Your task to perform on an android device: turn off sleep mode Image 0: 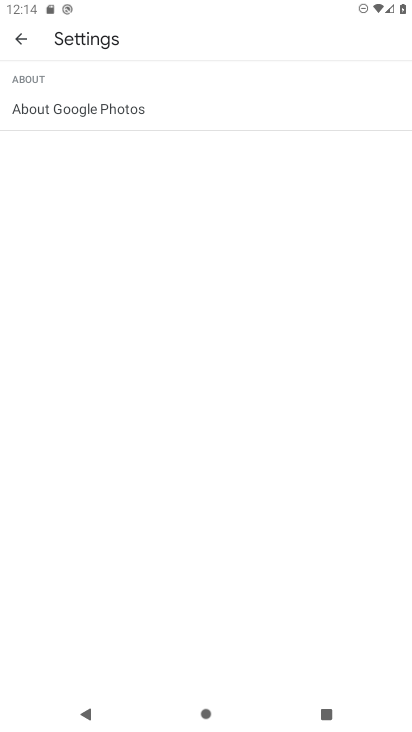
Step 0: press home button
Your task to perform on an android device: turn off sleep mode Image 1: 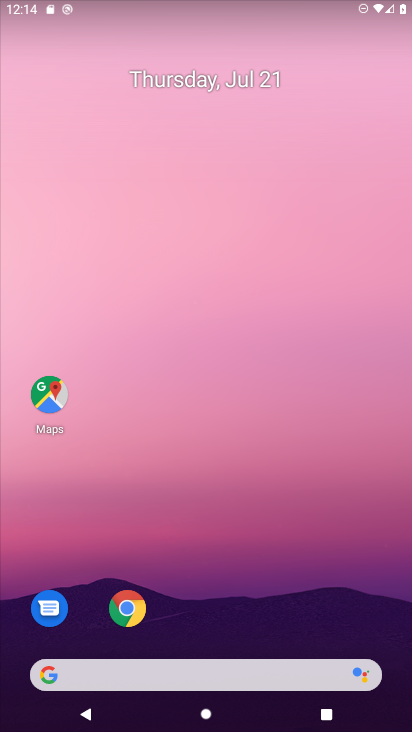
Step 1: press home button
Your task to perform on an android device: turn off sleep mode Image 2: 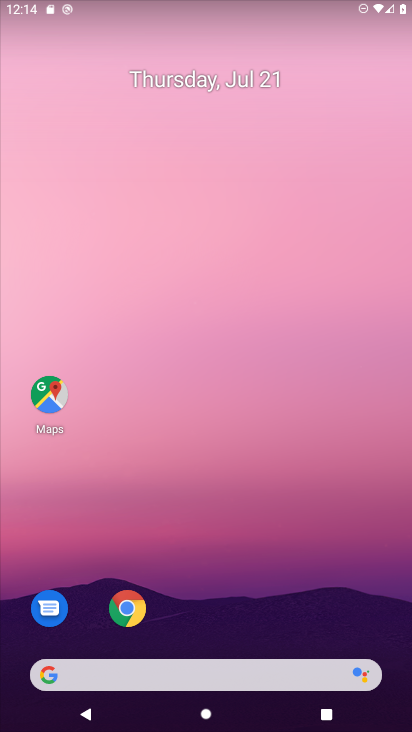
Step 2: drag from (256, 577) to (236, 53)
Your task to perform on an android device: turn off sleep mode Image 3: 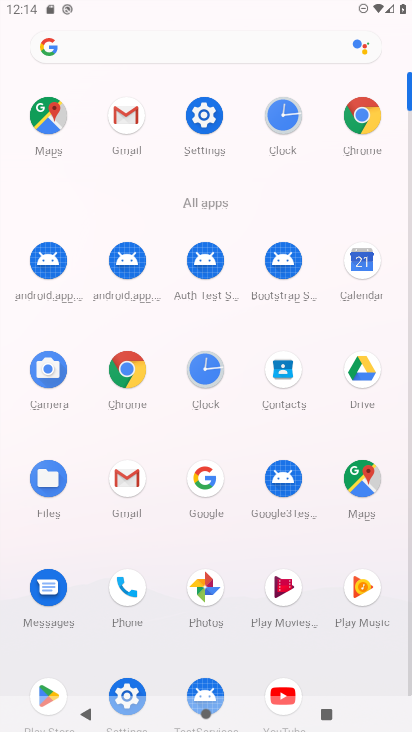
Step 3: click (200, 117)
Your task to perform on an android device: turn off sleep mode Image 4: 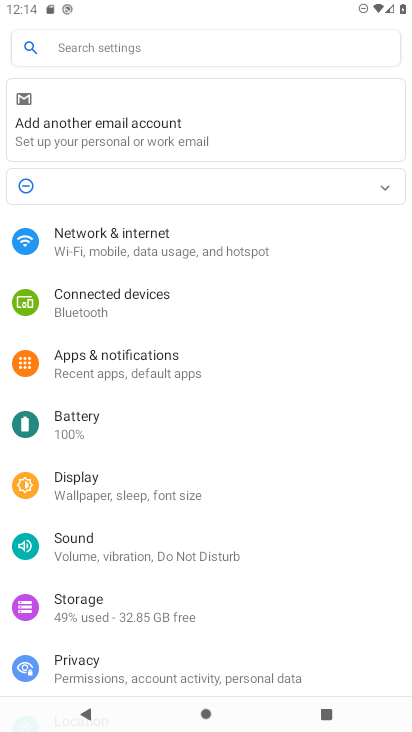
Step 4: click (112, 489)
Your task to perform on an android device: turn off sleep mode Image 5: 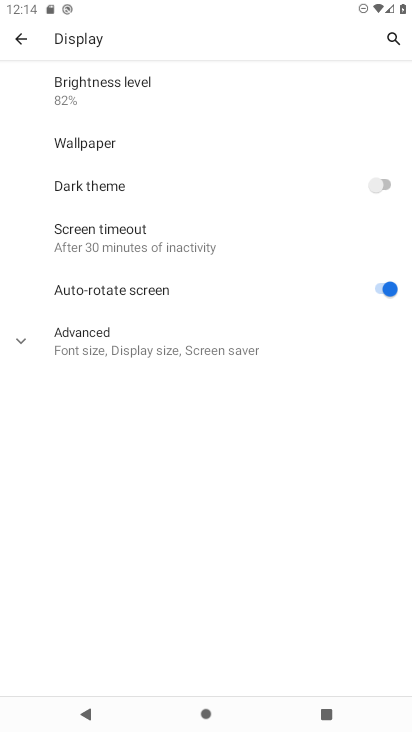
Step 5: click (18, 339)
Your task to perform on an android device: turn off sleep mode Image 6: 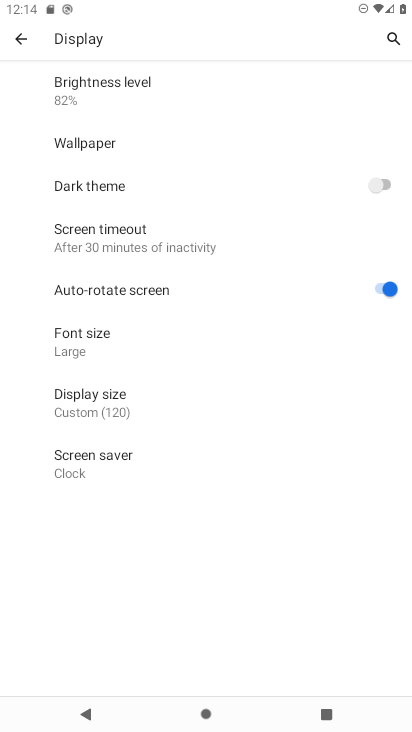
Step 6: task complete